Your task to perform on an android device: Search for the best rated headphones on Amazon. Image 0: 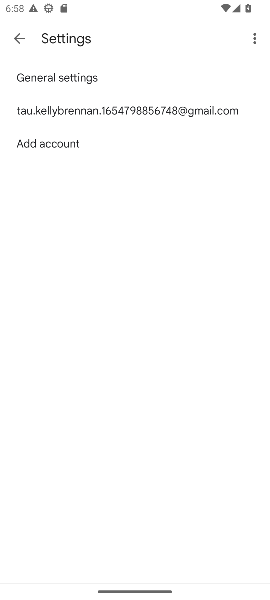
Step 0: press home button
Your task to perform on an android device: Search for the best rated headphones on Amazon. Image 1: 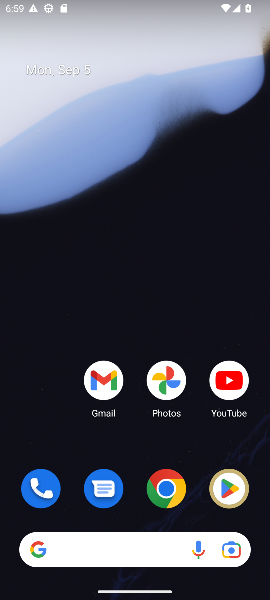
Step 1: click (166, 489)
Your task to perform on an android device: Search for the best rated headphones on Amazon. Image 2: 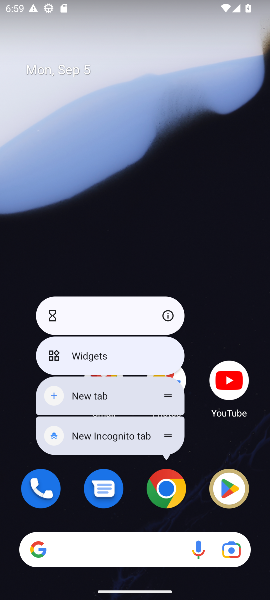
Step 2: click (176, 497)
Your task to perform on an android device: Search for the best rated headphones on Amazon. Image 3: 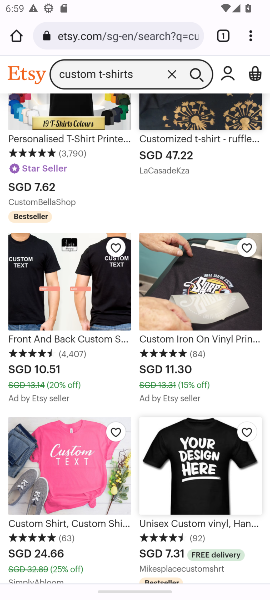
Step 3: click (119, 38)
Your task to perform on an android device: Search for the best rated headphones on Amazon. Image 4: 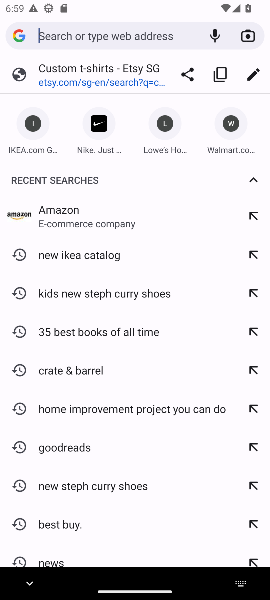
Step 4: type "amazon"
Your task to perform on an android device: Search for the best rated headphones on Amazon. Image 5: 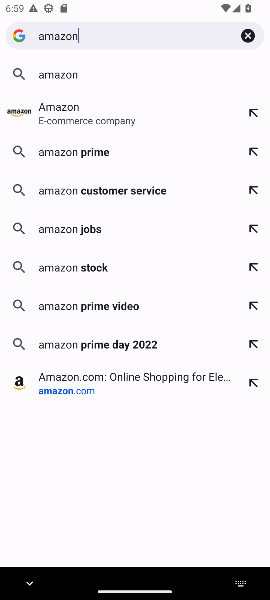
Step 5: press enter
Your task to perform on an android device: Search for the best rated headphones on Amazon. Image 6: 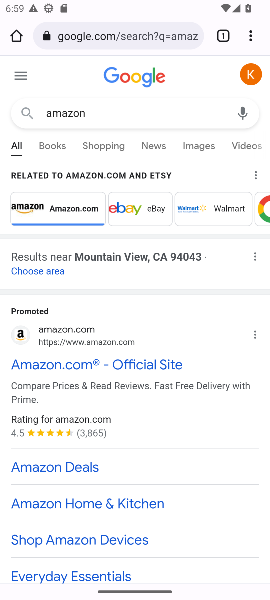
Step 6: click (89, 359)
Your task to perform on an android device: Search for the best rated headphones on Amazon. Image 7: 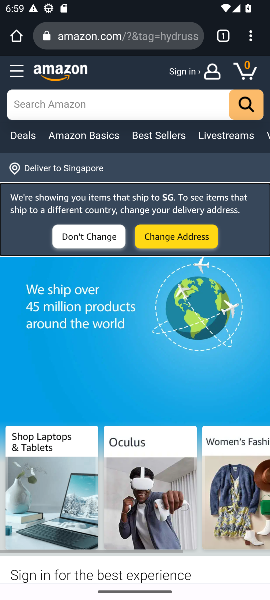
Step 7: click (107, 106)
Your task to perform on an android device: Search for the best rated headphones on Amazon. Image 8: 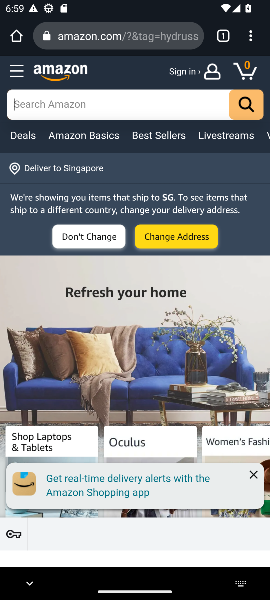
Step 8: type "headphones"
Your task to perform on an android device: Search for the best rated headphones on Amazon. Image 9: 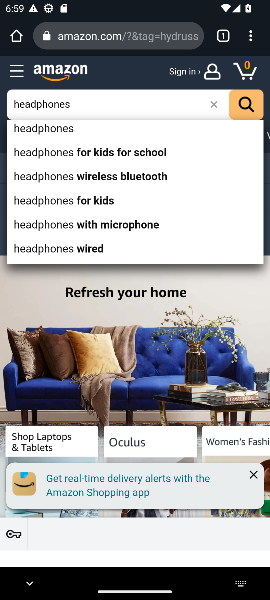
Step 9: press enter
Your task to perform on an android device: Search for the best rated headphones on Amazon. Image 10: 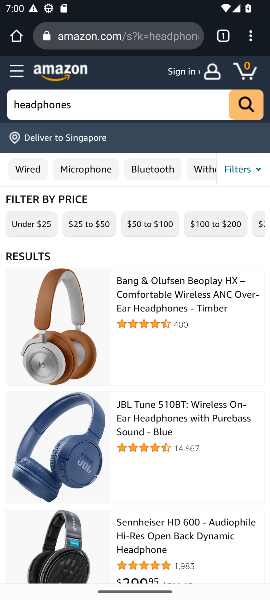
Step 10: click (256, 172)
Your task to perform on an android device: Search for the best rated headphones on Amazon. Image 11: 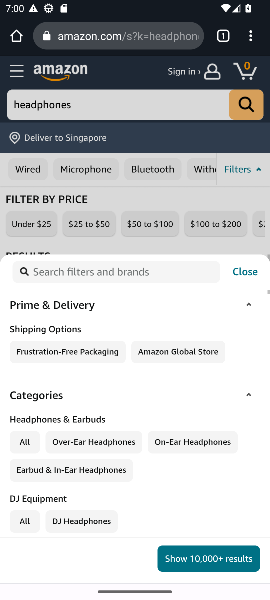
Step 11: drag from (198, 418) to (196, 304)
Your task to perform on an android device: Search for the best rated headphones on Amazon. Image 12: 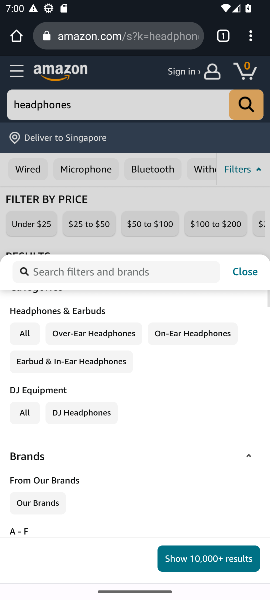
Step 12: drag from (196, 470) to (202, 330)
Your task to perform on an android device: Search for the best rated headphones on Amazon. Image 13: 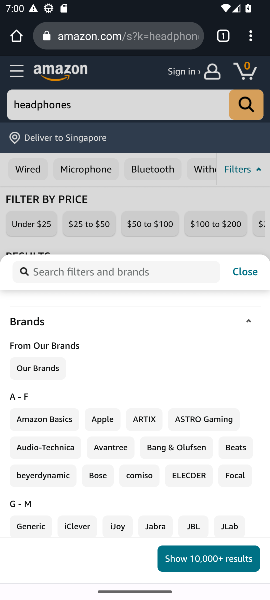
Step 13: drag from (197, 502) to (192, 325)
Your task to perform on an android device: Search for the best rated headphones on Amazon. Image 14: 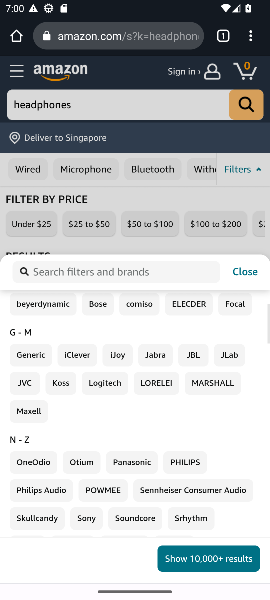
Step 14: click (165, 515)
Your task to perform on an android device: Search for the best rated headphones on Amazon. Image 15: 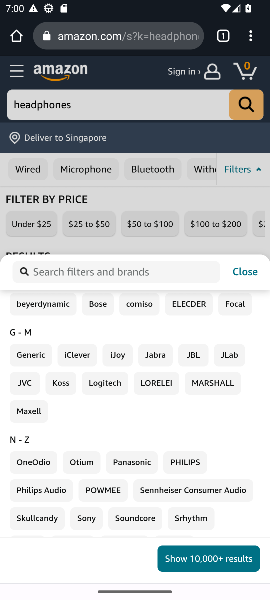
Step 15: drag from (175, 512) to (170, 381)
Your task to perform on an android device: Search for the best rated headphones on Amazon. Image 16: 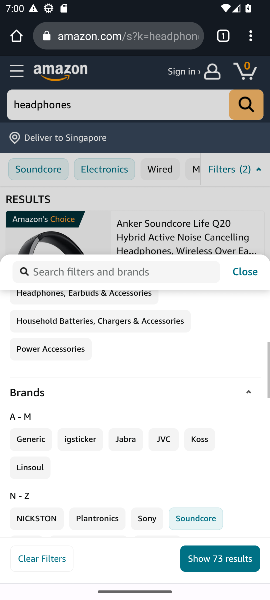
Step 16: click (41, 558)
Your task to perform on an android device: Search for the best rated headphones on Amazon. Image 17: 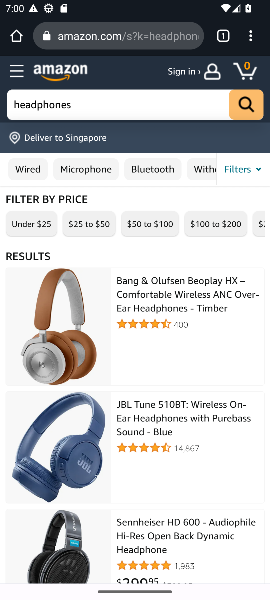
Step 17: click (245, 177)
Your task to perform on an android device: Search for the best rated headphones on Amazon. Image 18: 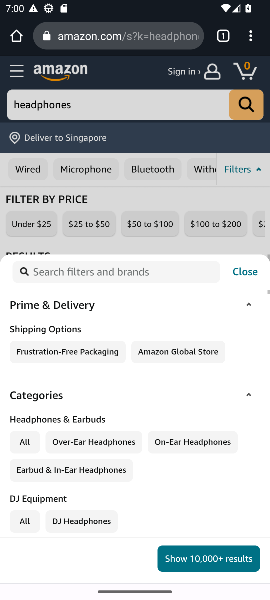
Step 18: drag from (153, 480) to (159, 261)
Your task to perform on an android device: Search for the best rated headphones on Amazon. Image 19: 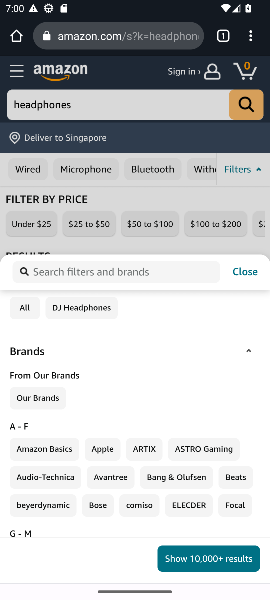
Step 19: drag from (155, 437) to (163, 264)
Your task to perform on an android device: Search for the best rated headphones on Amazon. Image 20: 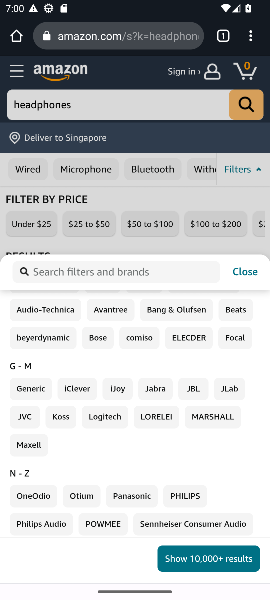
Step 20: drag from (145, 450) to (167, 306)
Your task to perform on an android device: Search for the best rated headphones on Amazon. Image 21: 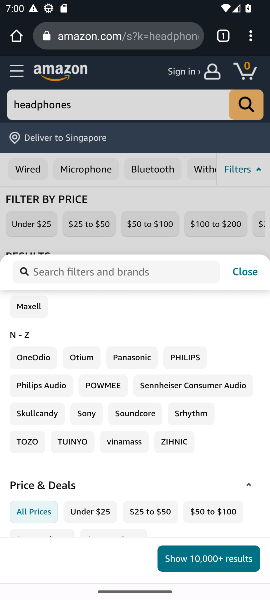
Step 21: drag from (145, 474) to (165, 302)
Your task to perform on an android device: Search for the best rated headphones on Amazon. Image 22: 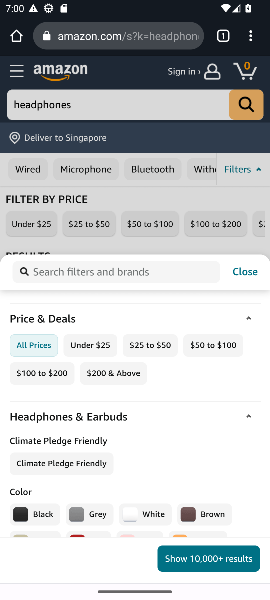
Step 22: drag from (152, 464) to (158, 307)
Your task to perform on an android device: Search for the best rated headphones on Amazon. Image 23: 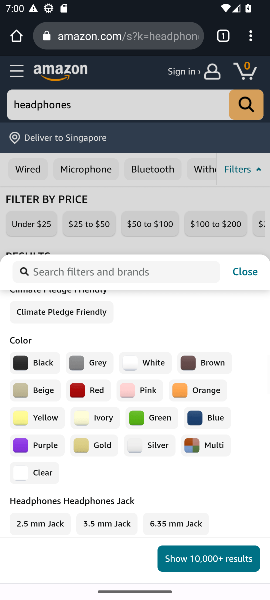
Step 23: drag from (122, 504) to (137, 298)
Your task to perform on an android device: Search for the best rated headphones on Amazon. Image 24: 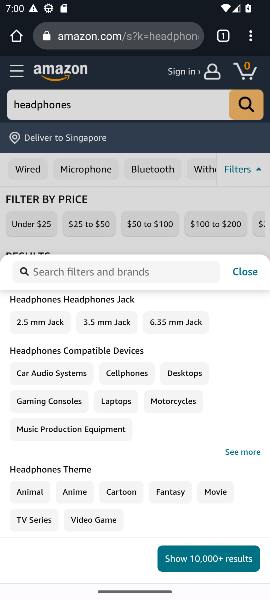
Step 24: drag from (132, 495) to (148, 302)
Your task to perform on an android device: Search for the best rated headphones on Amazon. Image 25: 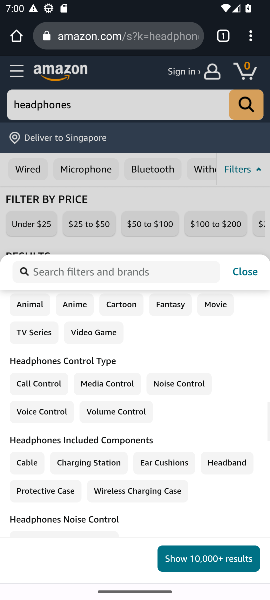
Step 25: drag from (145, 520) to (159, 303)
Your task to perform on an android device: Search for the best rated headphones on Amazon. Image 26: 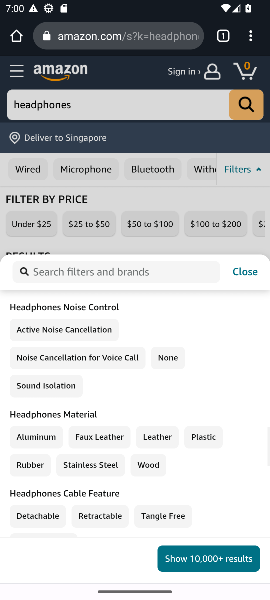
Step 26: drag from (140, 486) to (159, 291)
Your task to perform on an android device: Search for the best rated headphones on Amazon. Image 27: 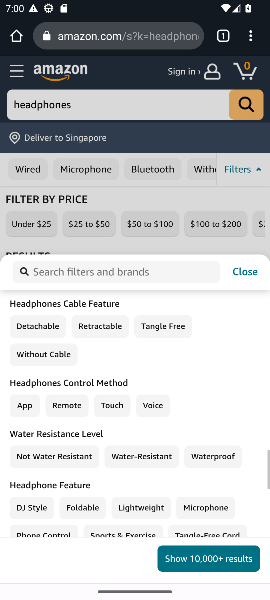
Step 27: drag from (131, 503) to (156, 326)
Your task to perform on an android device: Search for the best rated headphones on Amazon. Image 28: 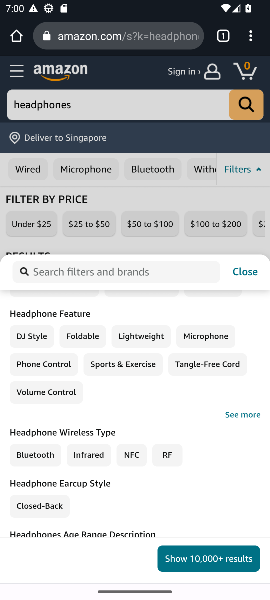
Step 28: click (159, 348)
Your task to perform on an android device: Search for the best rated headphones on Amazon. Image 29: 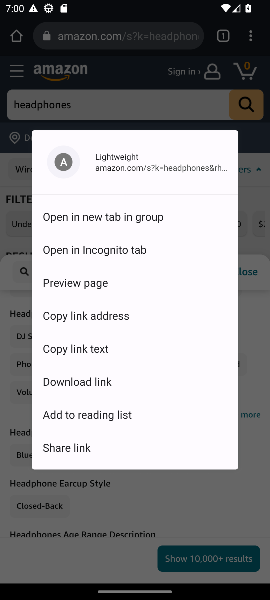
Step 29: click (143, 498)
Your task to perform on an android device: Search for the best rated headphones on Amazon. Image 30: 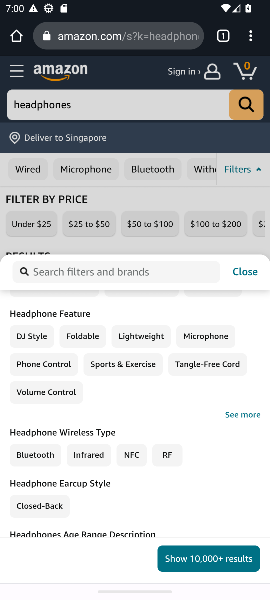
Step 30: drag from (145, 513) to (166, 326)
Your task to perform on an android device: Search for the best rated headphones on Amazon. Image 31: 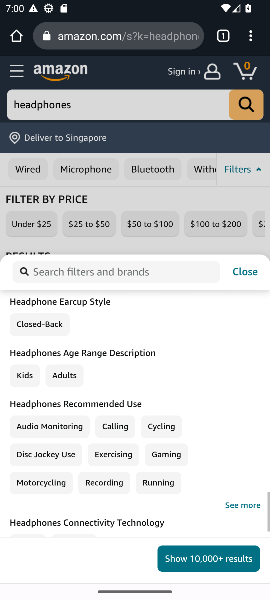
Step 31: drag from (128, 527) to (141, 358)
Your task to perform on an android device: Search for the best rated headphones on Amazon. Image 32: 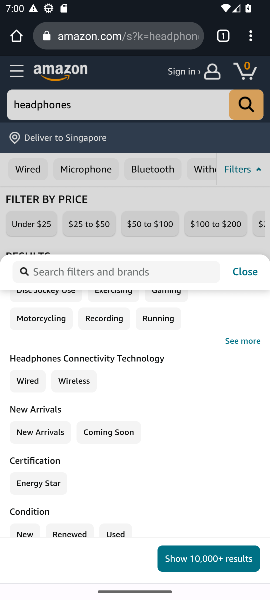
Step 32: drag from (123, 492) to (147, 320)
Your task to perform on an android device: Search for the best rated headphones on Amazon. Image 33: 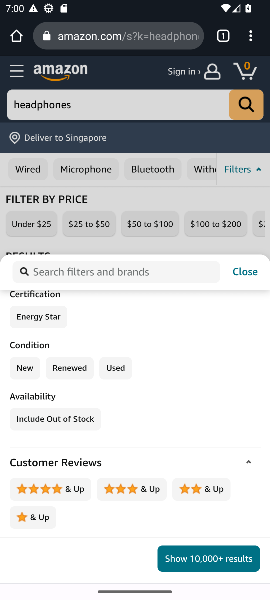
Step 33: click (50, 490)
Your task to perform on an android device: Search for the best rated headphones on Amazon. Image 34: 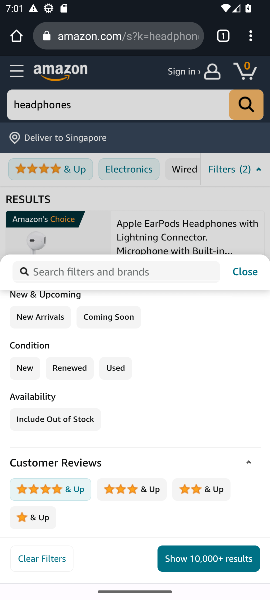
Step 34: click (225, 563)
Your task to perform on an android device: Search for the best rated headphones on Amazon. Image 35: 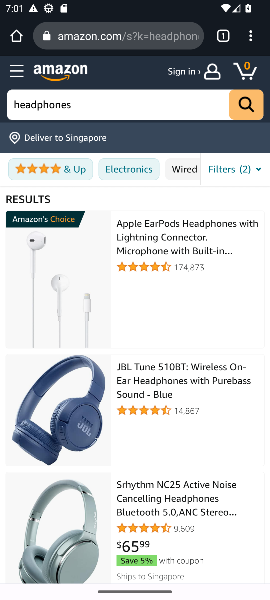
Step 35: task complete